Your task to perform on an android device: change the upload size in google photos Image 0: 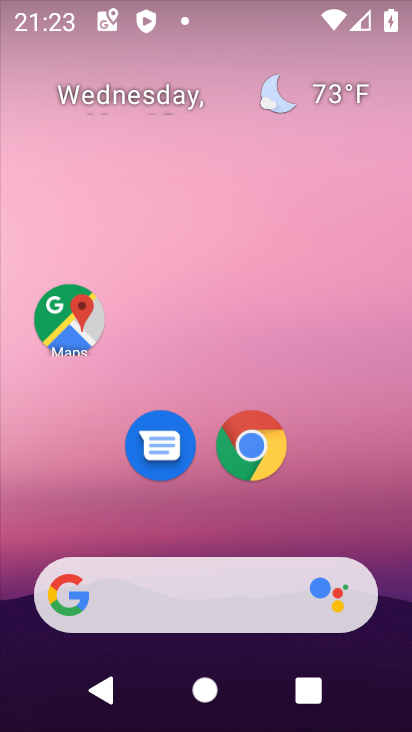
Step 0: drag from (308, 502) to (342, 118)
Your task to perform on an android device: change the upload size in google photos Image 1: 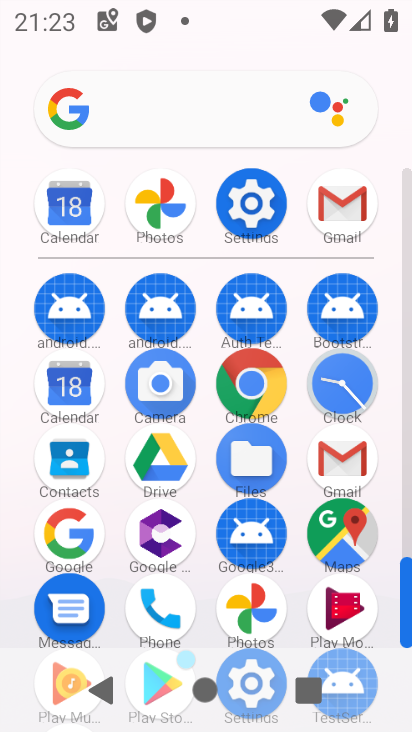
Step 1: click (251, 613)
Your task to perform on an android device: change the upload size in google photos Image 2: 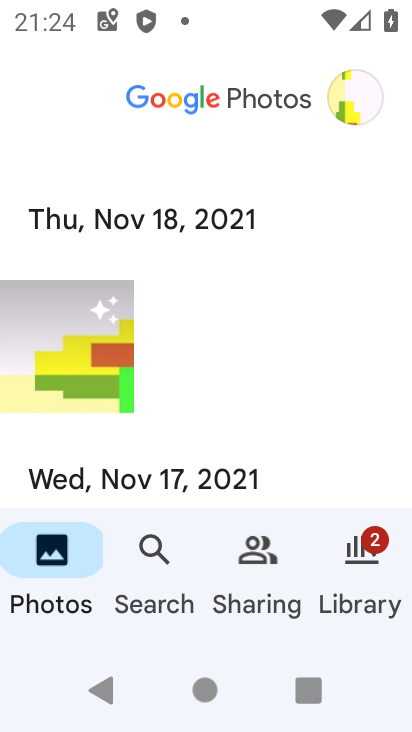
Step 2: click (351, 107)
Your task to perform on an android device: change the upload size in google photos Image 3: 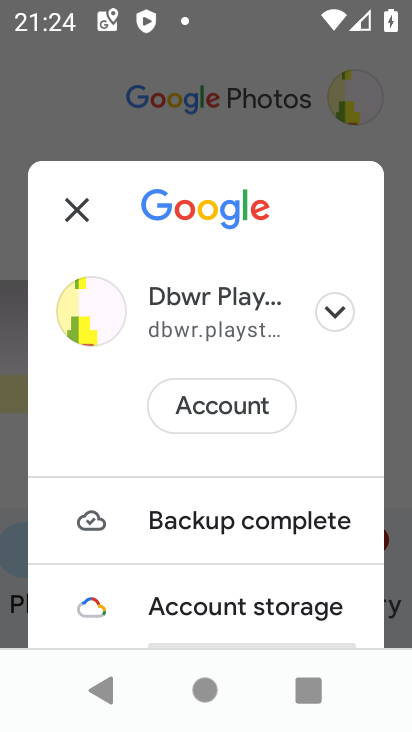
Step 3: drag from (152, 582) to (167, 242)
Your task to perform on an android device: change the upload size in google photos Image 4: 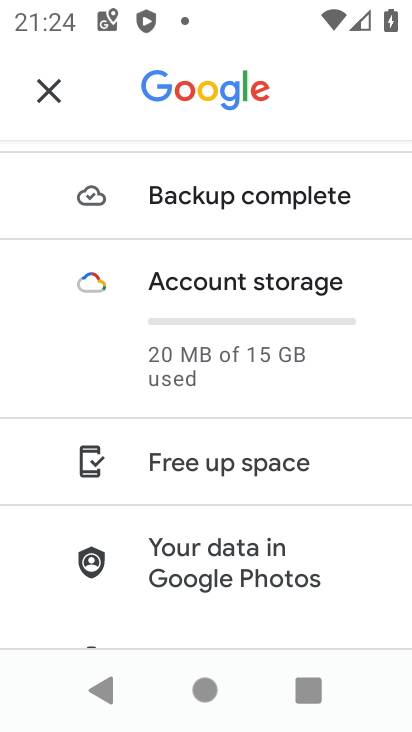
Step 4: drag from (190, 400) to (224, 191)
Your task to perform on an android device: change the upload size in google photos Image 5: 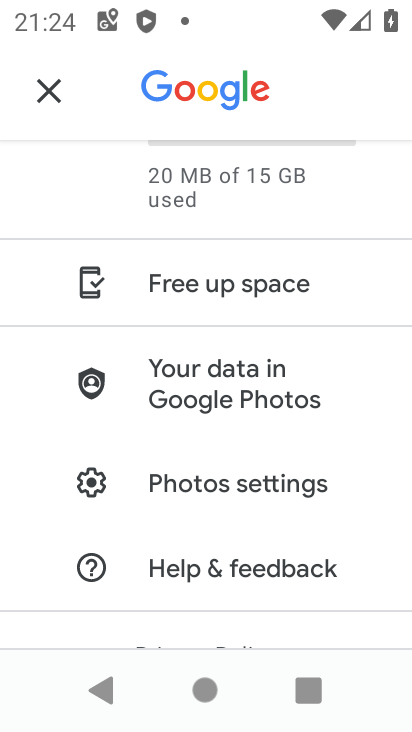
Step 5: click (196, 486)
Your task to perform on an android device: change the upload size in google photos Image 6: 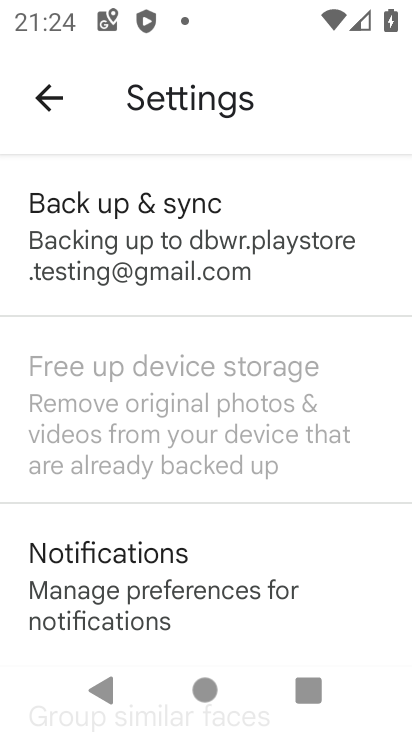
Step 6: click (178, 261)
Your task to perform on an android device: change the upload size in google photos Image 7: 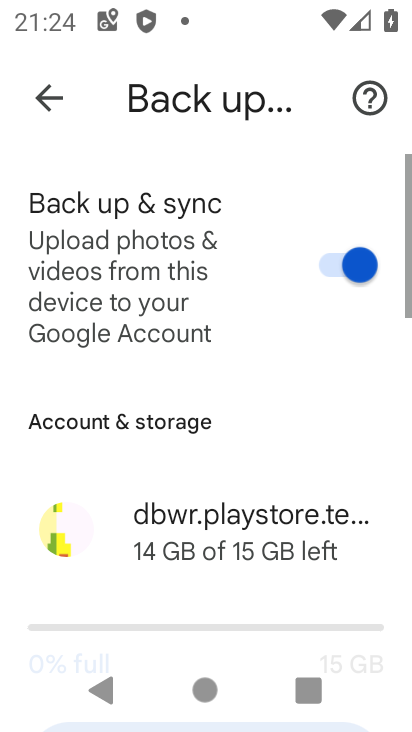
Step 7: drag from (135, 543) to (226, 138)
Your task to perform on an android device: change the upload size in google photos Image 8: 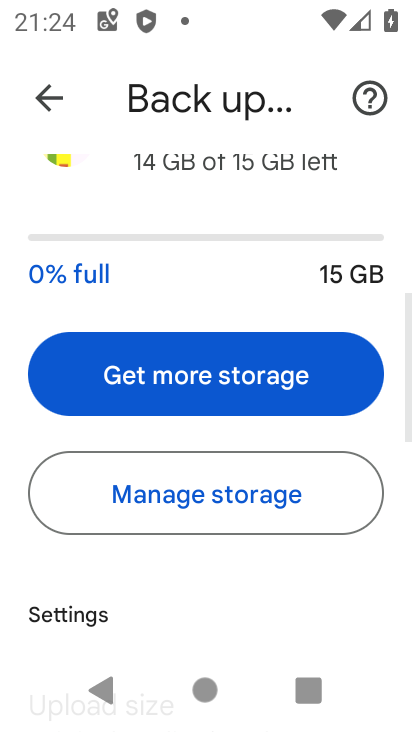
Step 8: drag from (200, 507) to (262, 174)
Your task to perform on an android device: change the upload size in google photos Image 9: 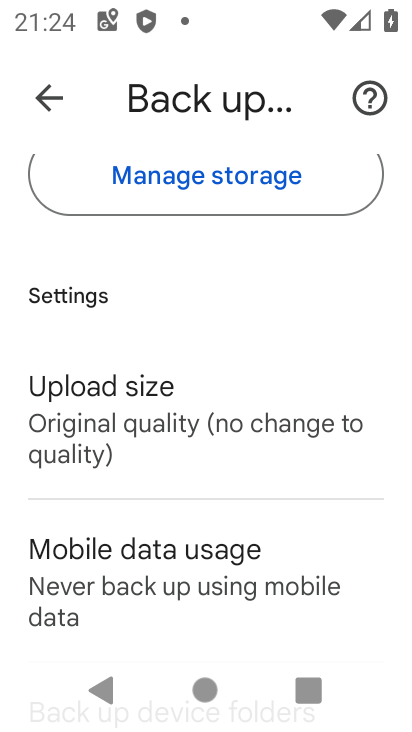
Step 9: click (187, 450)
Your task to perform on an android device: change the upload size in google photos Image 10: 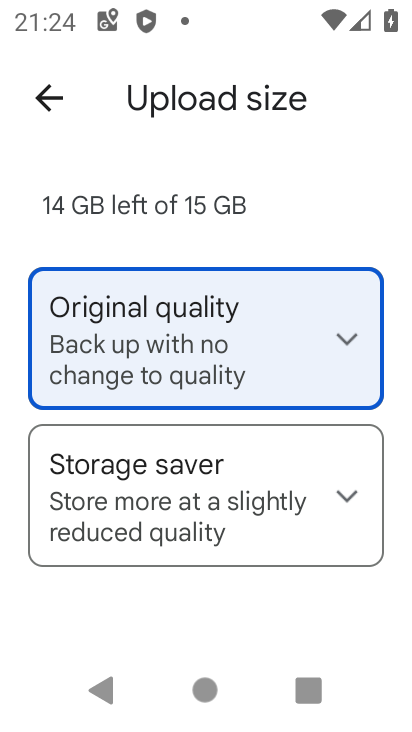
Step 10: click (170, 456)
Your task to perform on an android device: change the upload size in google photos Image 11: 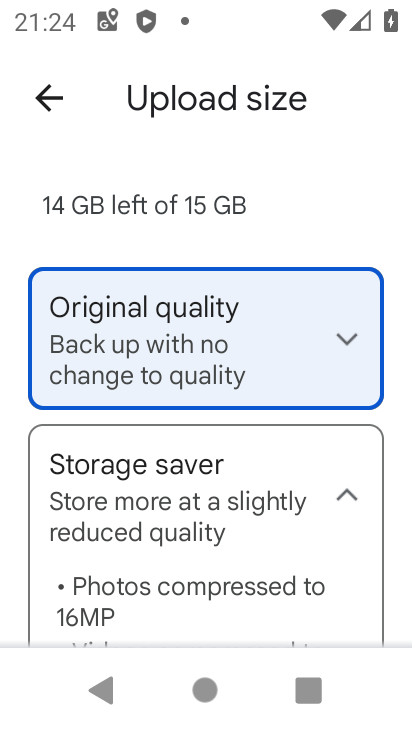
Step 11: drag from (222, 590) to (231, 279)
Your task to perform on an android device: change the upload size in google photos Image 12: 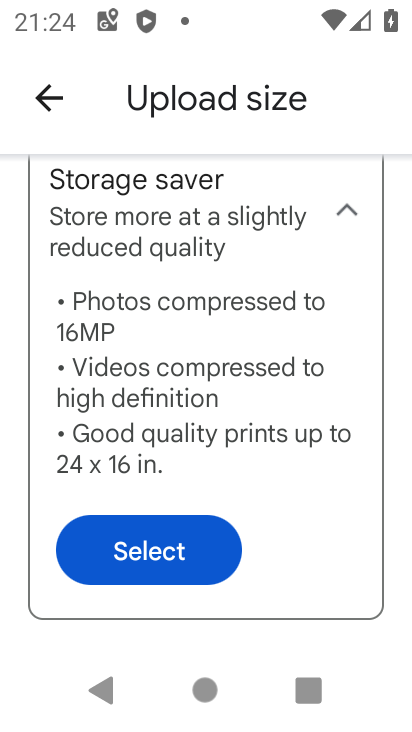
Step 12: click (143, 536)
Your task to perform on an android device: change the upload size in google photos Image 13: 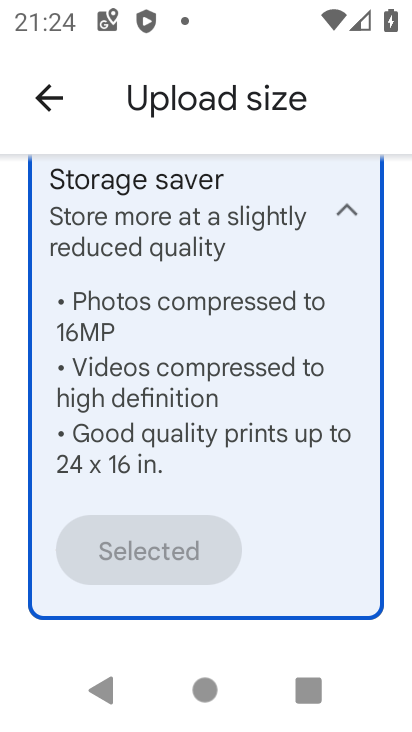
Step 13: task complete